Your task to perform on an android device: turn smart compose on in the gmail app Image 0: 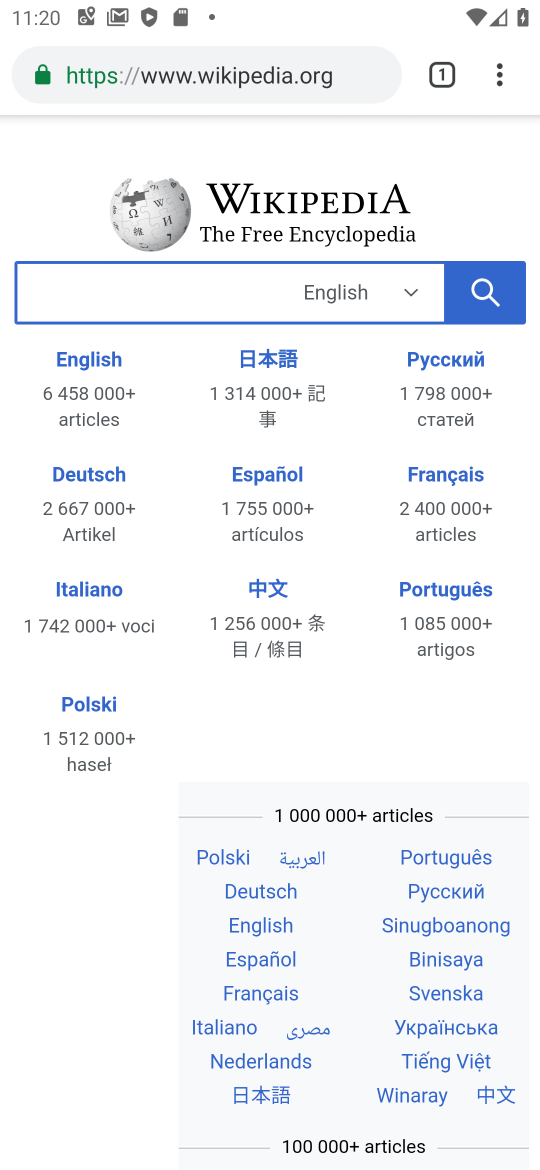
Step 0: press home button
Your task to perform on an android device: turn smart compose on in the gmail app Image 1: 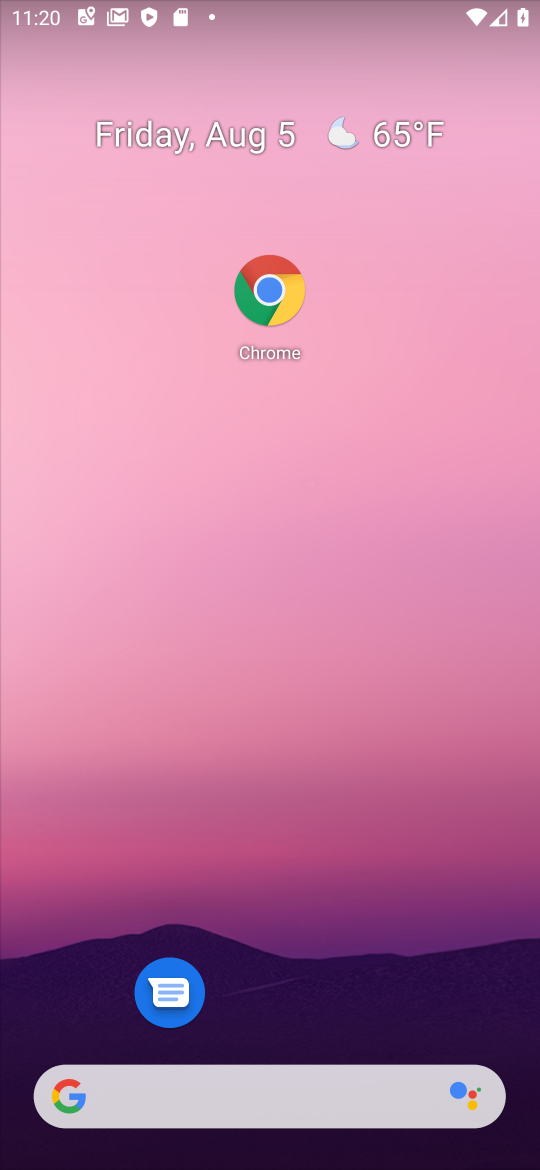
Step 1: drag from (308, 708) to (294, 226)
Your task to perform on an android device: turn smart compose on in the gmail app Image 2: 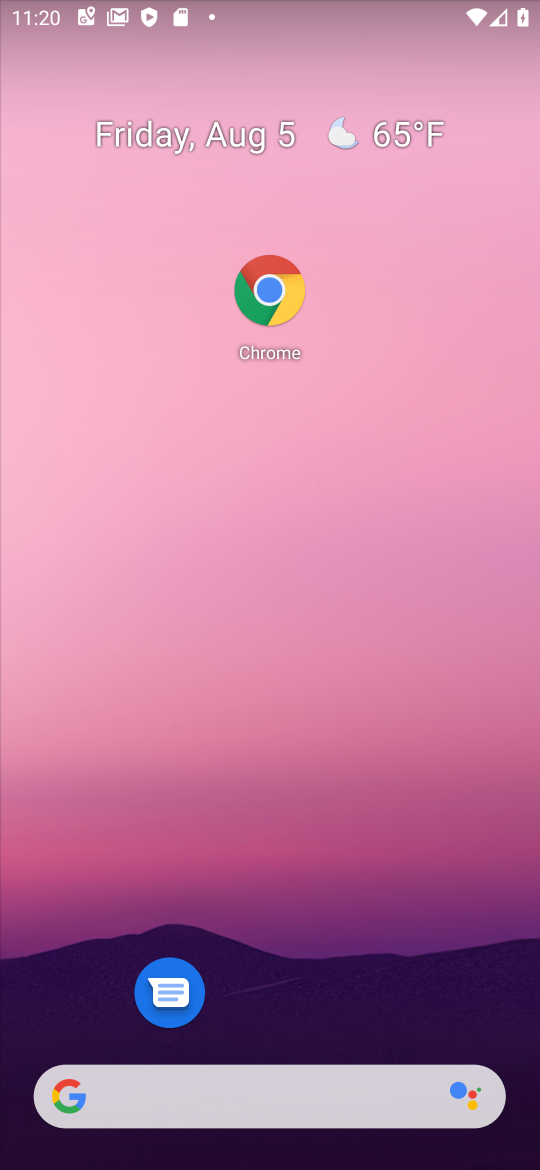
Step 2: drag from (317, 750) to (350, 134)
Your task to perform on an android device: turn smart compose on in the gmail app Image 3: 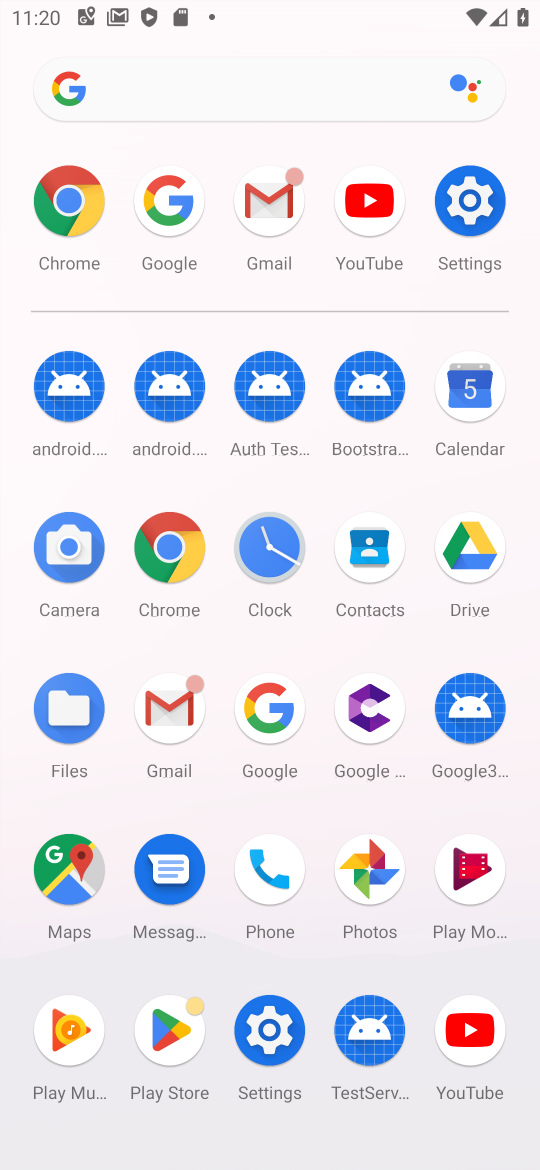
Step 3: click (281, 225)
Your task to perform on an android device: turn smart compose on in the gmail app Image 4: 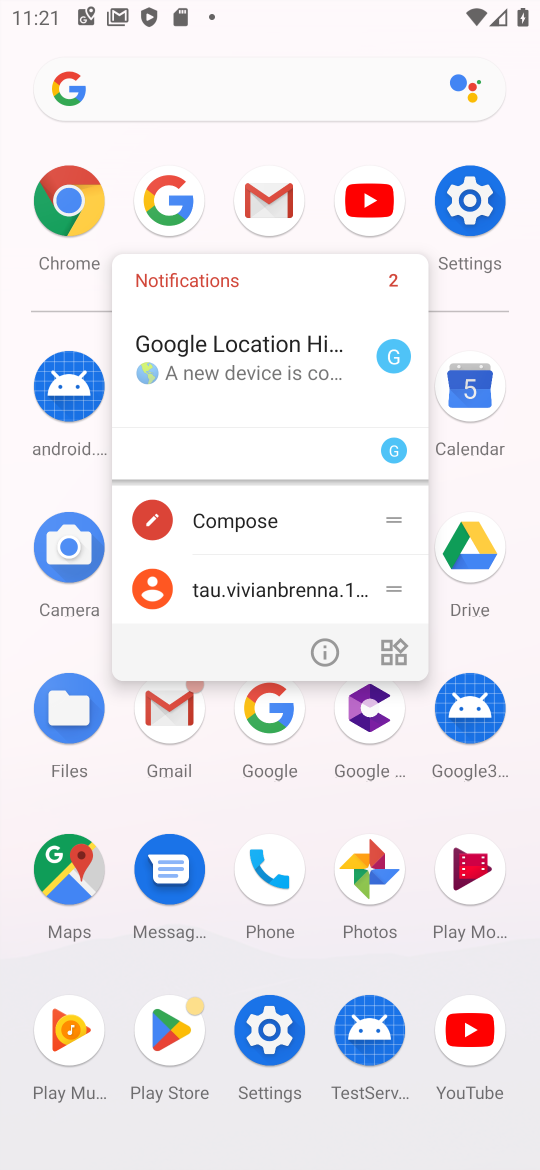
Step 4: click (266, 198)
Your task to perform on an android device: turn smart compose on in the gmail app Image 5: 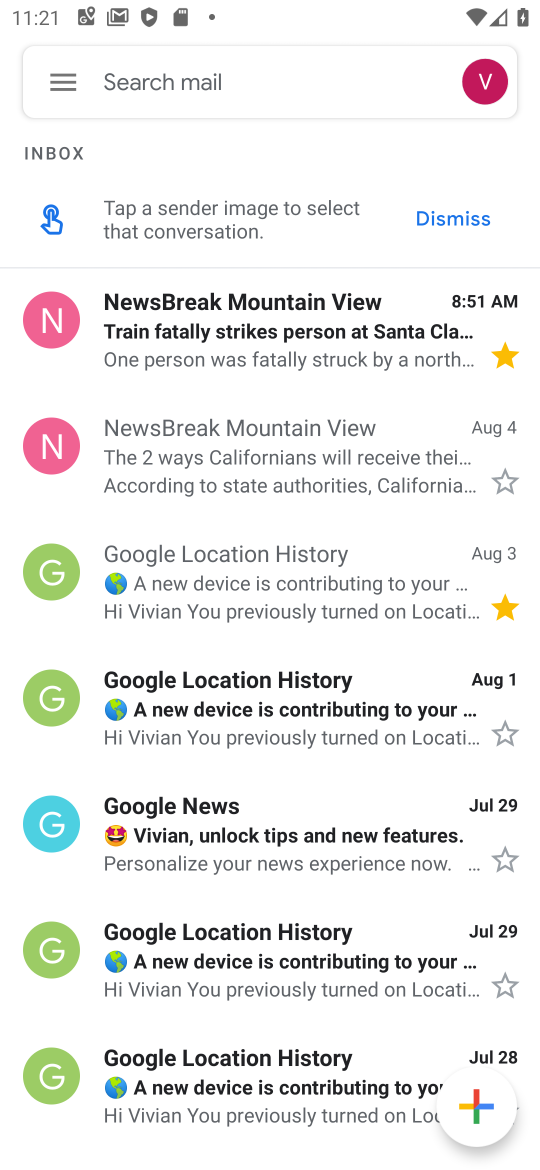
Step 5: click (61, 85)
Your task to perform on an android device: turn smart compose on in the gmail app Image 6: 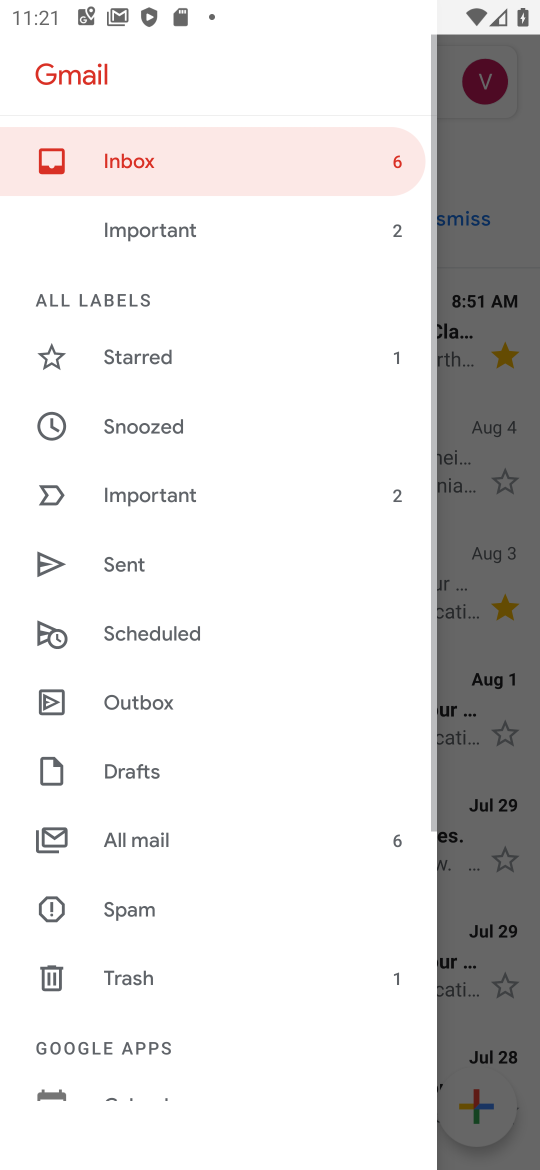
Step 6: drag from (84, 947) to (112, 183)
Your task to perform on an android device: turn smart compose on in the gmail app Image 7: 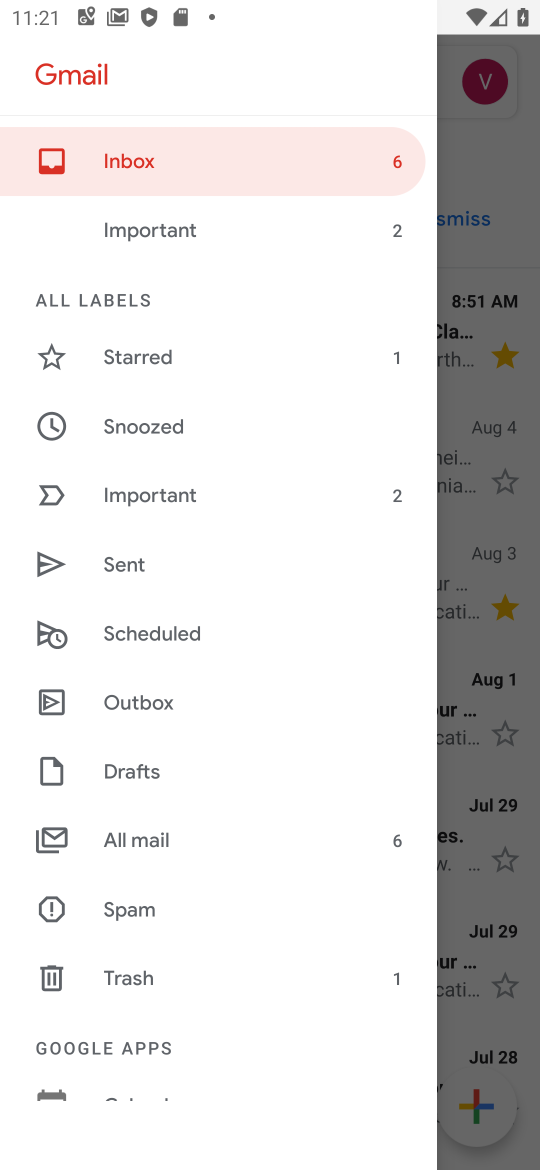
Step 7: drag from (153, 1014) to (276, 188)
Your task to perform on an android device: turn smart compose on in the gmail app Image 8: 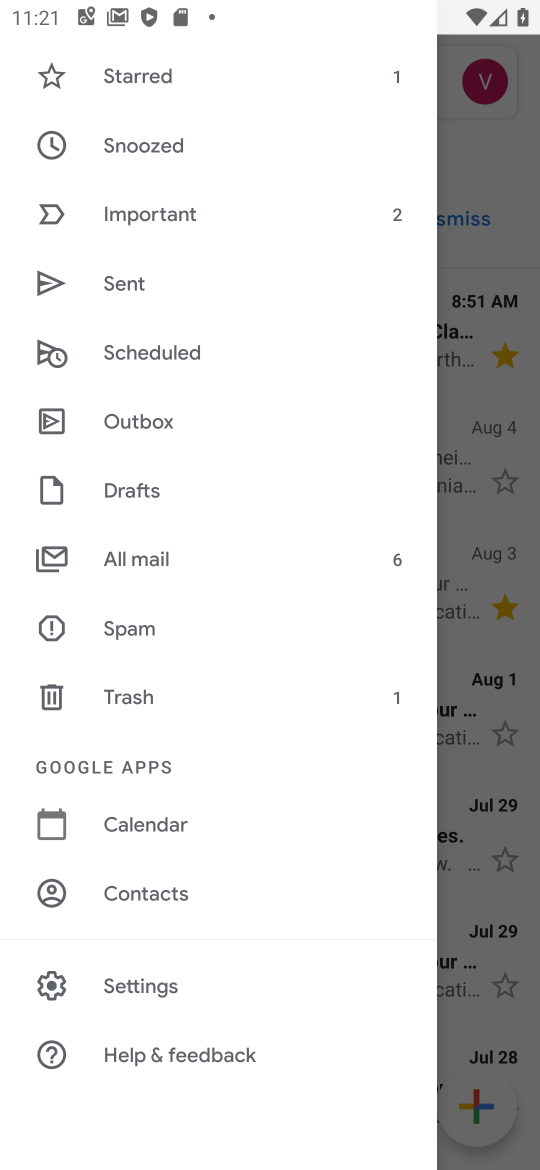
Step 8: click (142, 999)
Your task to perform on an android device: turn smart compose on in the gmail app Image 9: 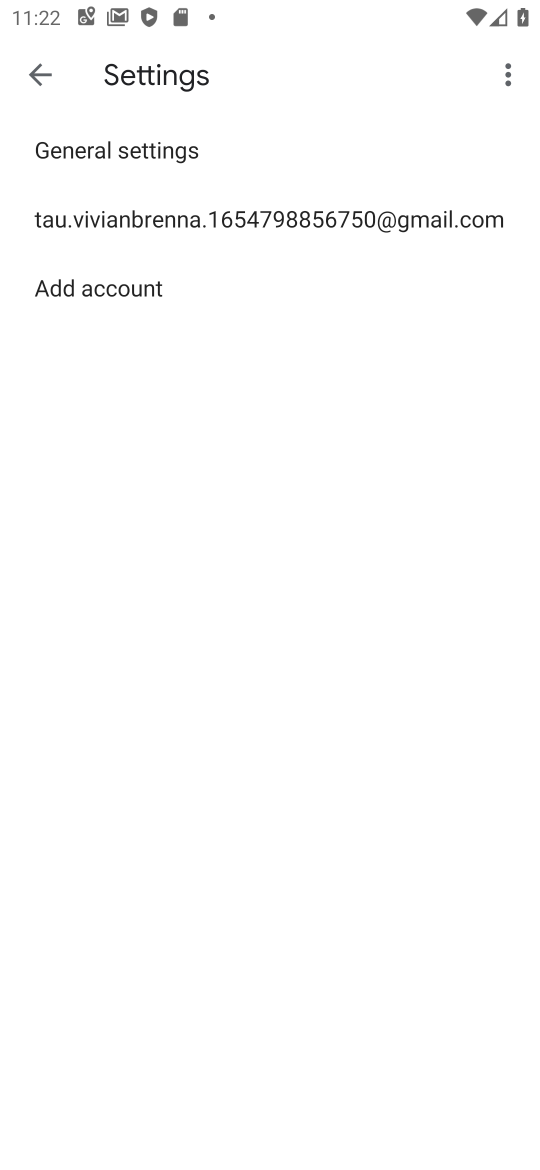
Step 9: click (134, 226)
Your task to perform on an android device: turn smart compose on in the gmail app Image 10: 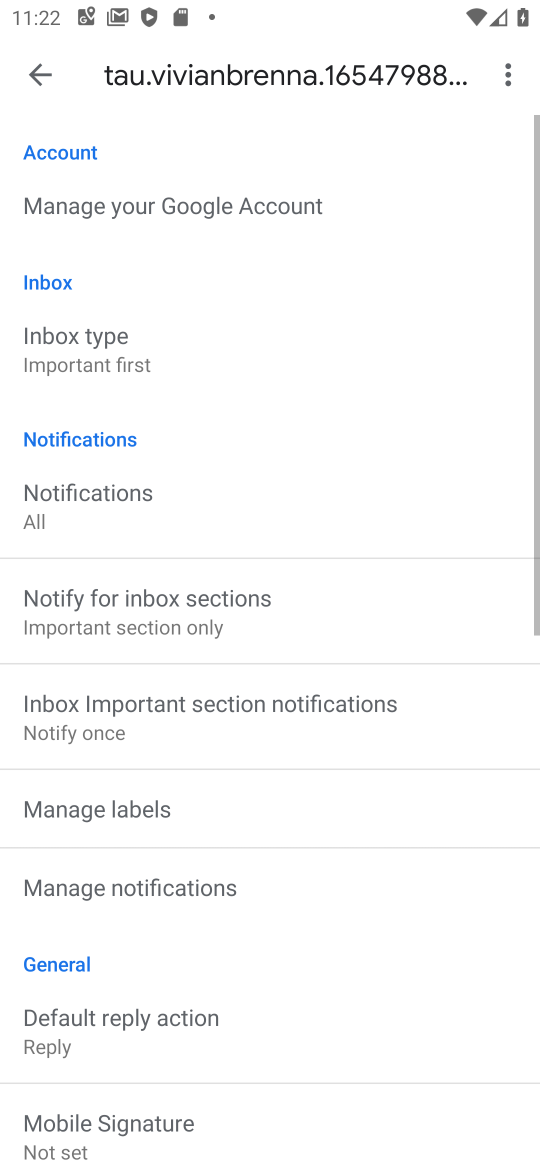
Step 10: task complete